Your task to perform on an android device: Open Wikipedia Image 0: 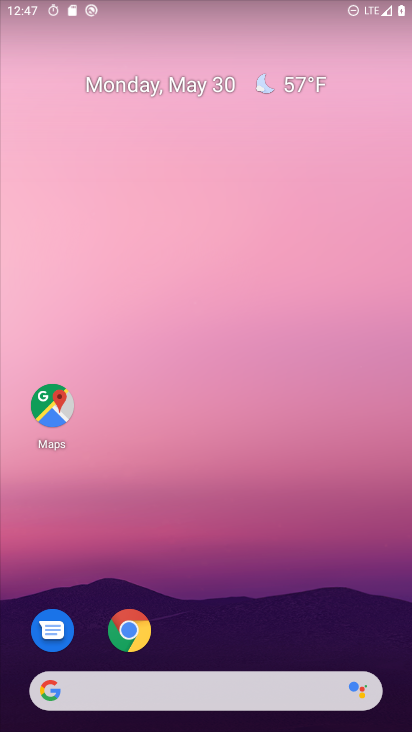
Step 0: drag from (301, 707) to (246, 80)
Your task to perform on an android device: Open Wikipedia Image 1: 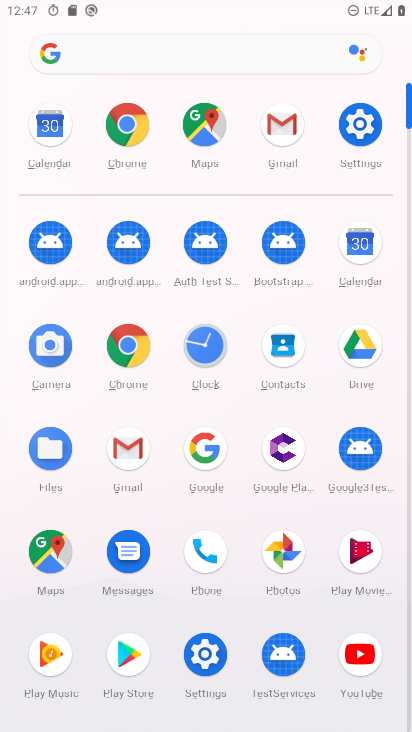
Step 1: click (125, 123)
Your task to perform on an android device: Open Wikipedia Image 2: 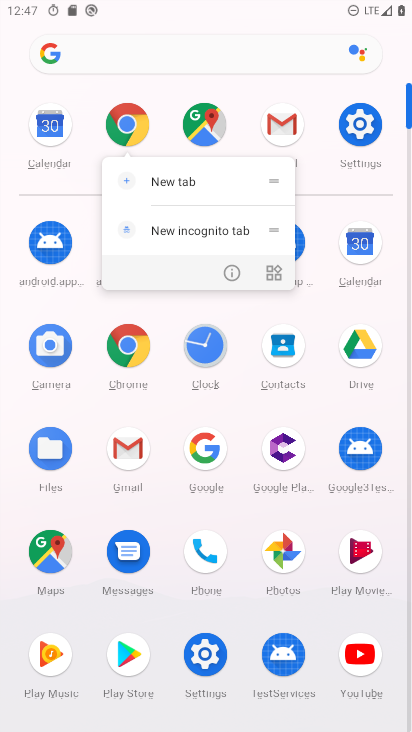
Step 2: click (125, 121)
Your task to perform on an android device: Open Wikipedia Image 3: 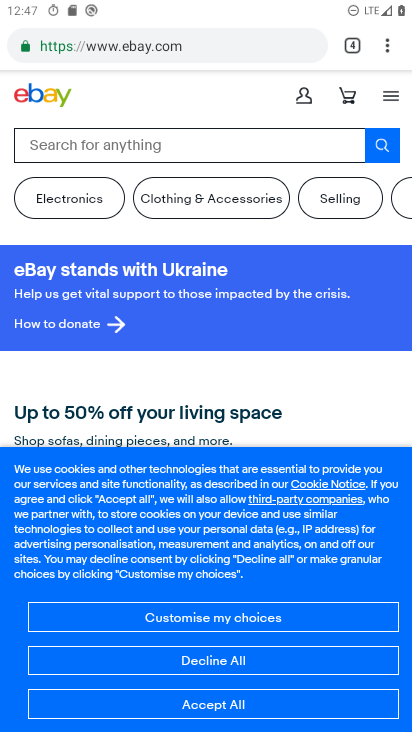
Step 3: click (383, 53)
Your task to perform on an android device: Open Wikipedia Image 4: 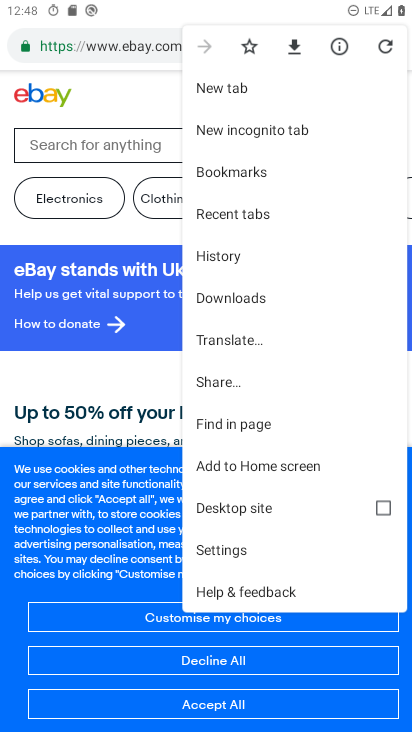
Step 4: click (207, 86)
Your task to perform on an android device: Open Wikipedia Image 5: 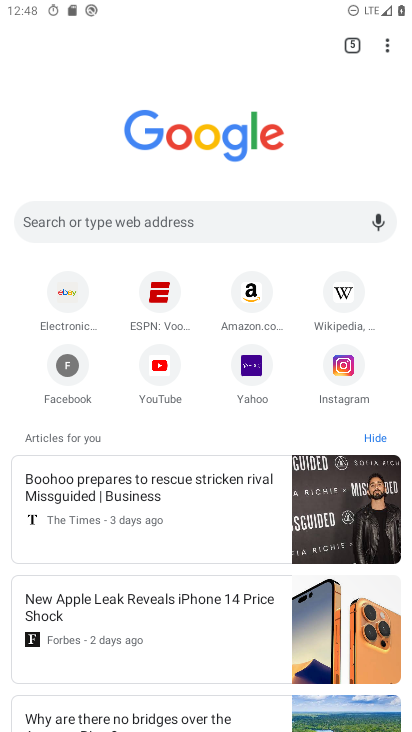
Step 5: click (343, 296)
Your task to perform on an android device: Open Wikipedia Image 6: 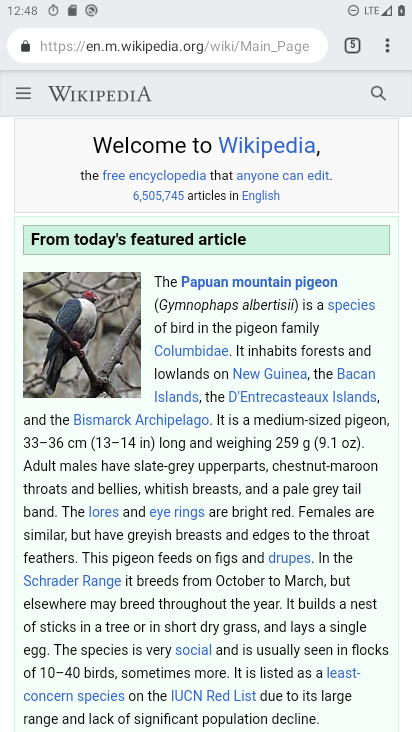
Step 6: task complete